Your task to perform on an android device: turn on location history Image 0: 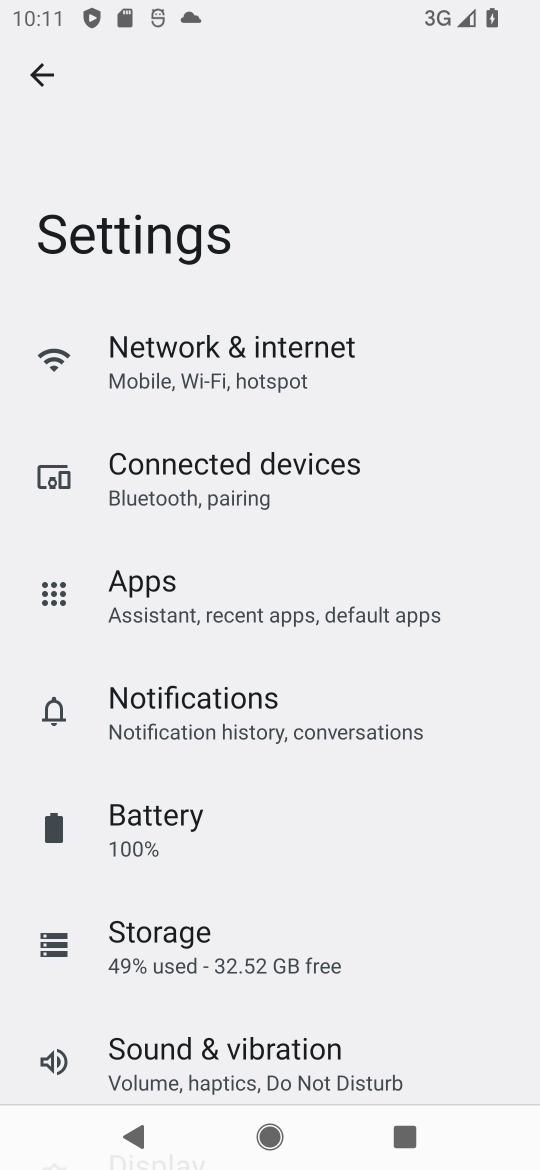
Step 0: press home button
Your task to perform on an android device: turn on location history Image 1: 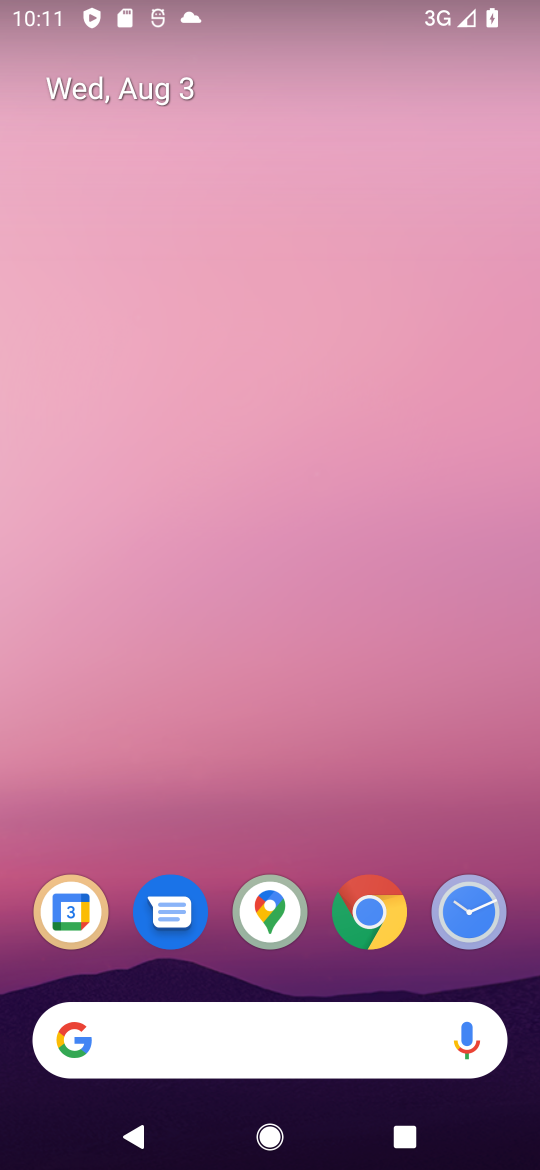
Step 1: drag from (258, 783) to (328, 83)
Your task to perform on an android device: turn on location history Image 2: 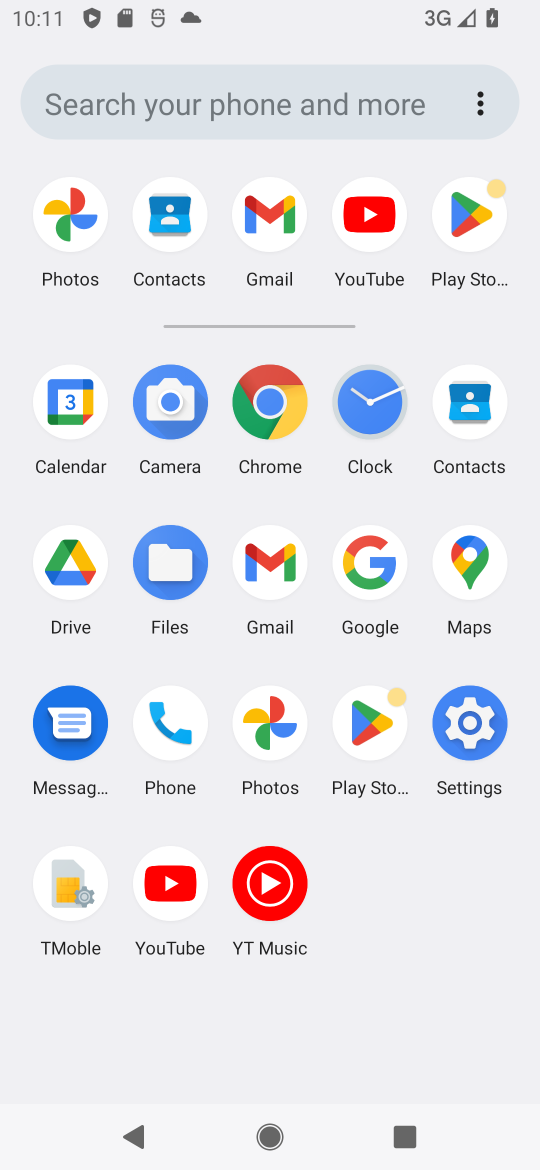
Step 2: click (482, 734)
Your task to perform on an android device: turn on location history Image 3: 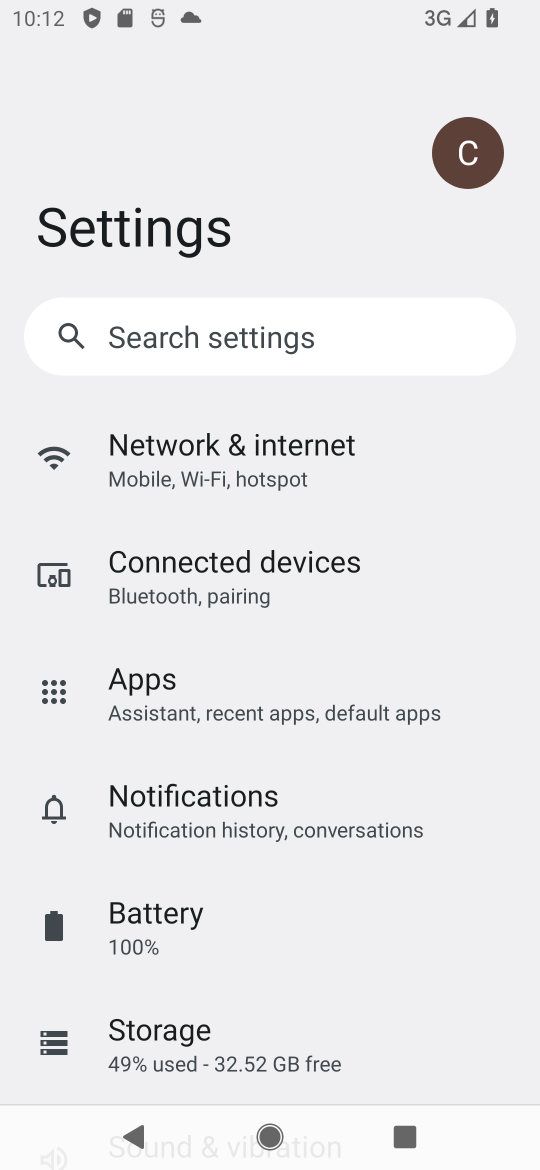
Step 3: drag from (274, 854) to (290, 400)
Your task to perform on an android device: turn on location history Image 4: 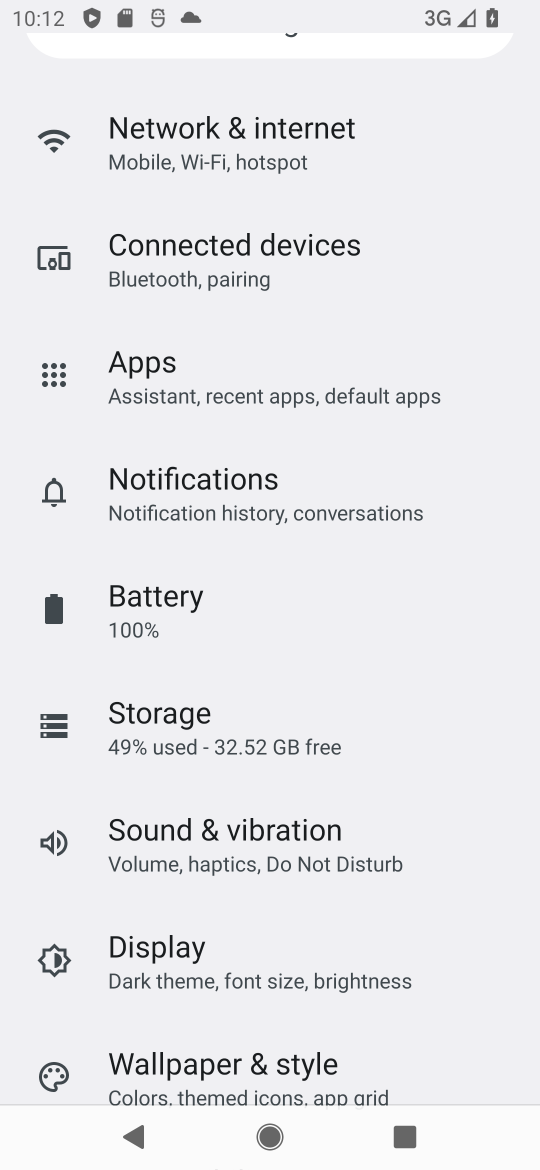
Step 4: drag from (303, 950) to (406, 315)
Your task to perform on an android device: turn on location history Image 5: 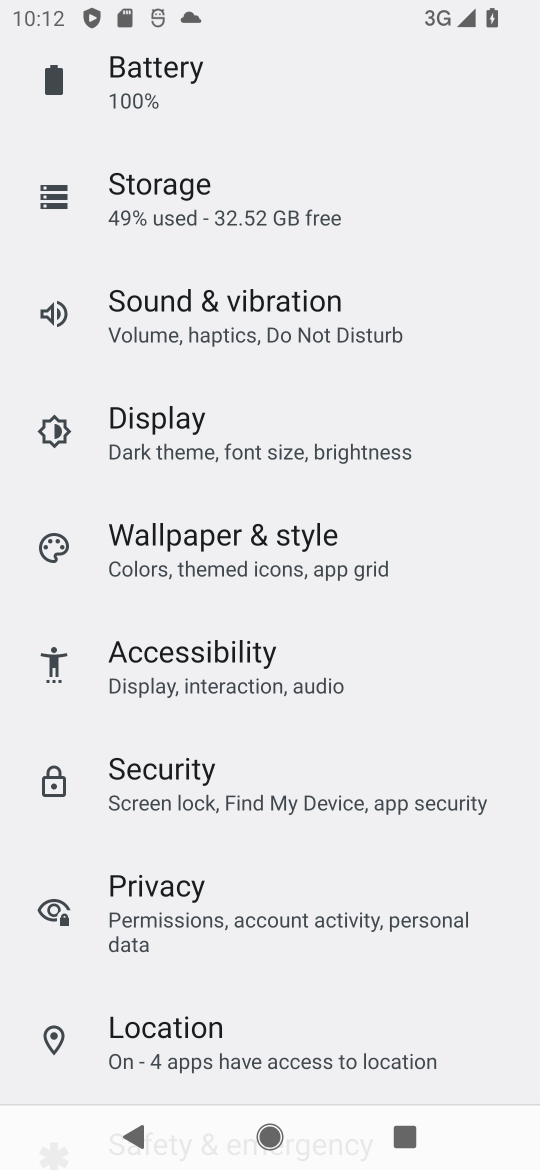
Step 5: click (153, 1041)
Your task to perform on an android device: turn on location history Image 6: 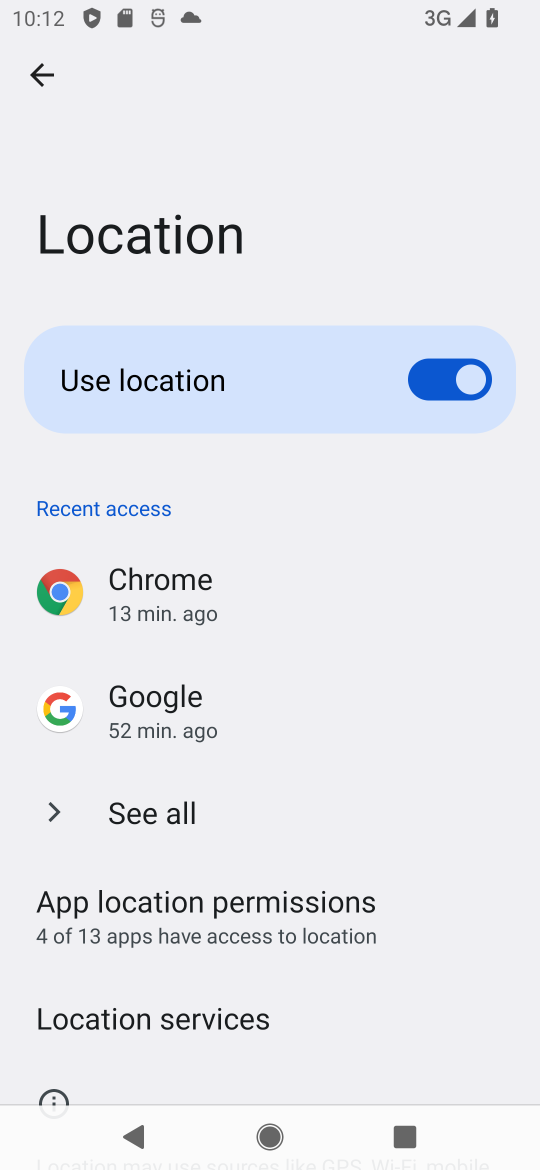
Step 6: task complete